Your task to perform on an android device: turn off airplane mode Image 0: 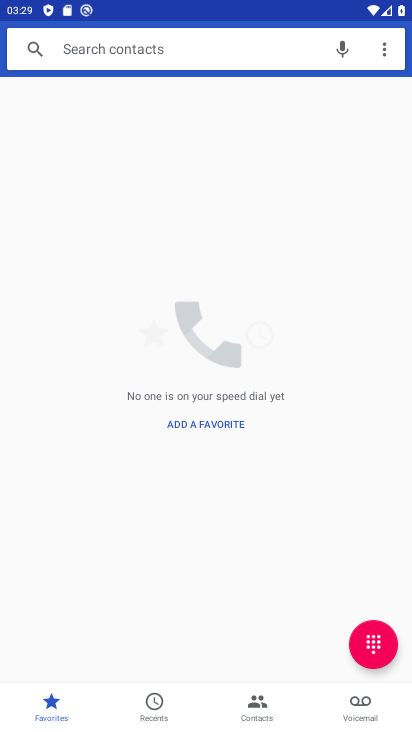
Step 0: press home button
Your task to perform on an android device: turn off airplane mode Image 1: 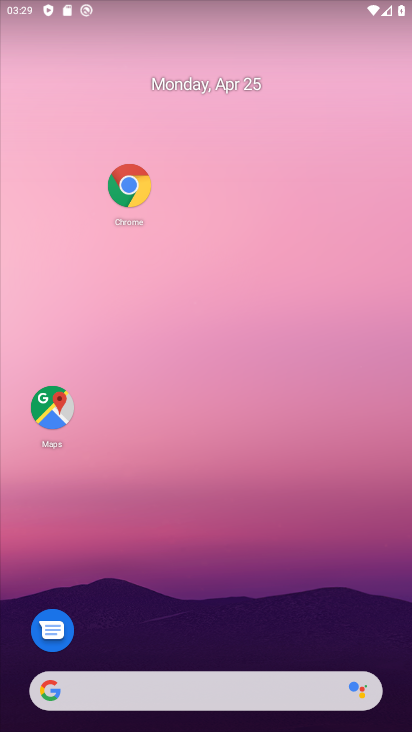
Step 1: drag from (186, 656) to (186, 141)
Your task to perform on an android device: turn off airplane mode Image 2: 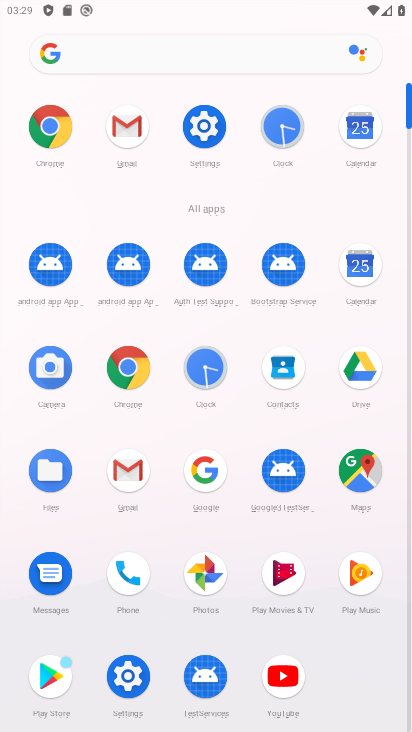
Step 2: click (203, 130)
Your task to perform on an android device: turn off airplane mode Image 3: 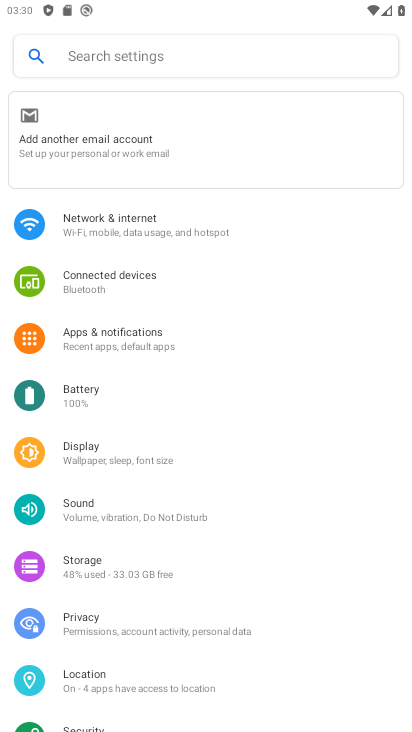
Step 3: click (114, 230)
Your task to perform on an android device: turn off airplane mode Image 4: 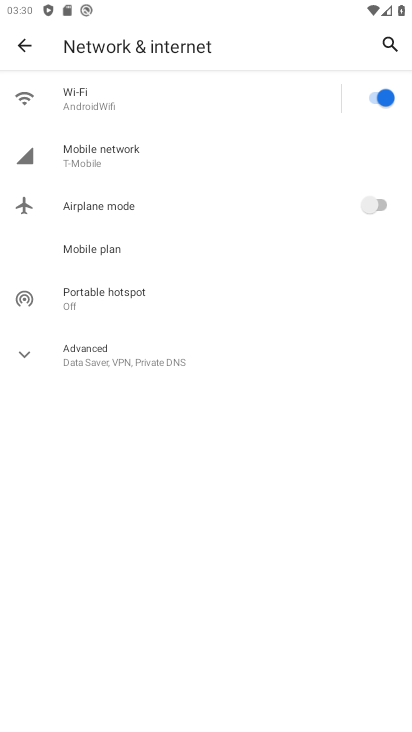
Step 4: task complete